Your task to perform on an android device: change text size in settings app Image 0: 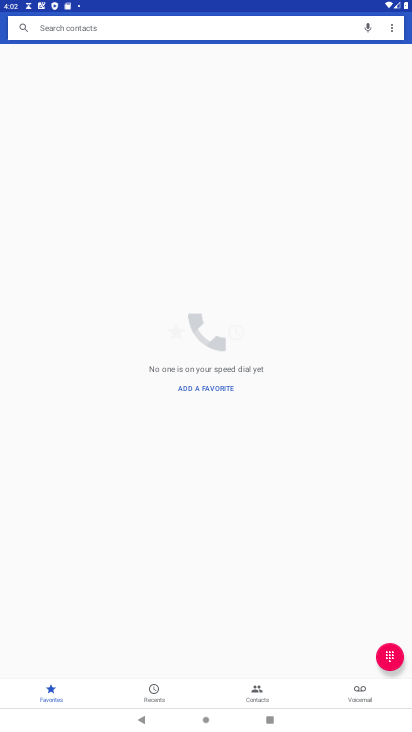
Step 0: press home button
Your task to perform on an android device: change text size in settings app Image 1: 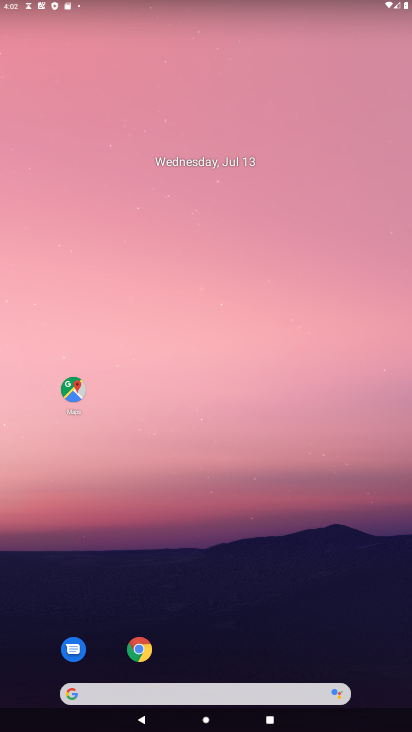
Step 1: drag from (231, 709) to (226, 42)
Your task to perform on an android device: change text size in settings app Image 2: 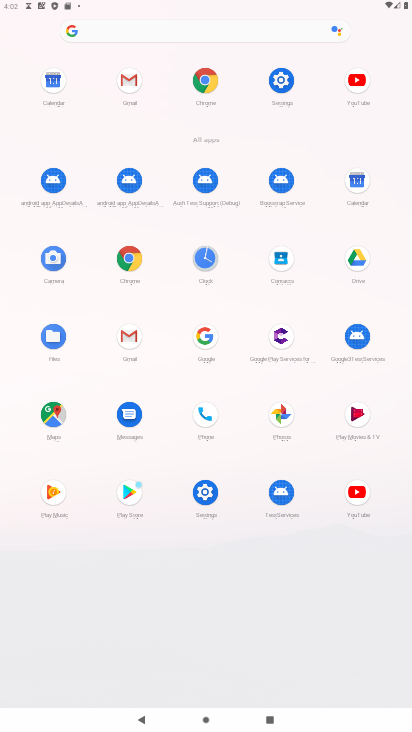
Step 2: click (280, 78)
Your task to perform on an android device: change text size in settings app Image 3: 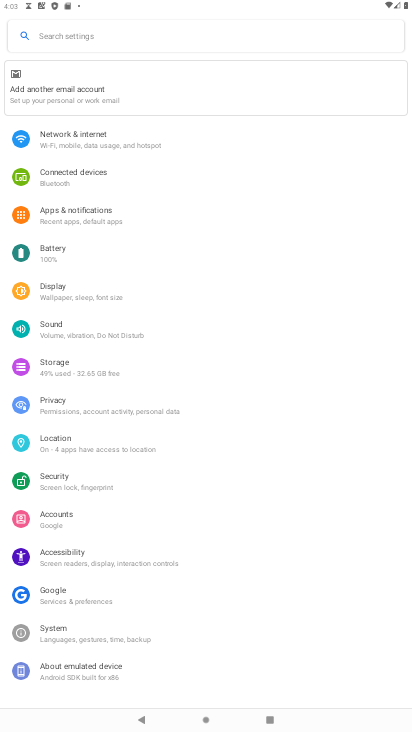
Step 3: click (93, 299)
Your task to perform on an android device: change text size in settings app Image 4: 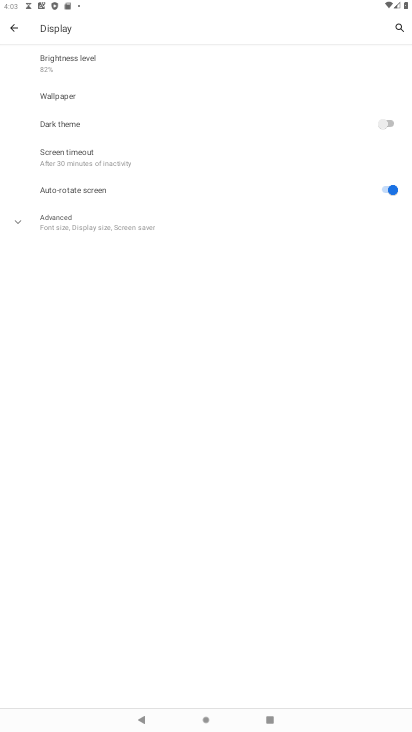
Step 4: click (91, 224)
Your task to perform on an android device: change text size in settings app Image 5: 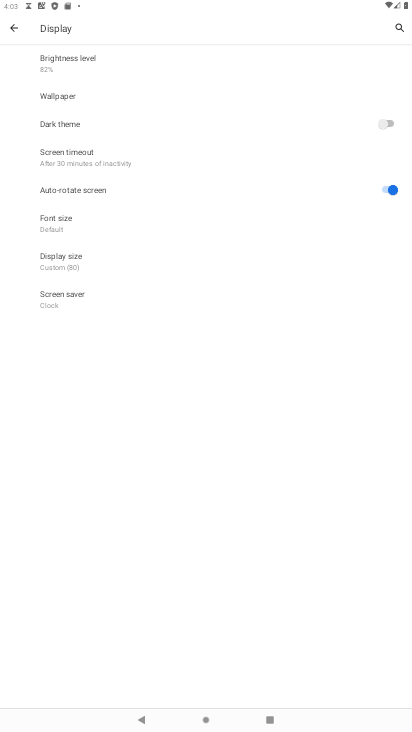
Step 5: click (50, 224)
Your task to perform on an android device: change text size in settings app Image 6: 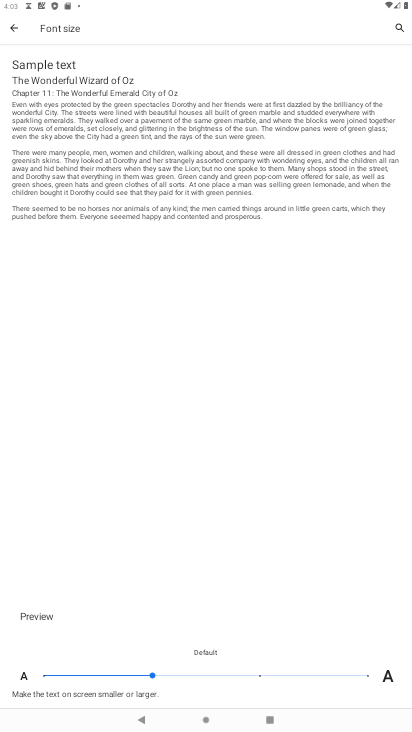
Step 6: click (365, 674)
Your task to perform on an android device: change text size in settings app Image 7: 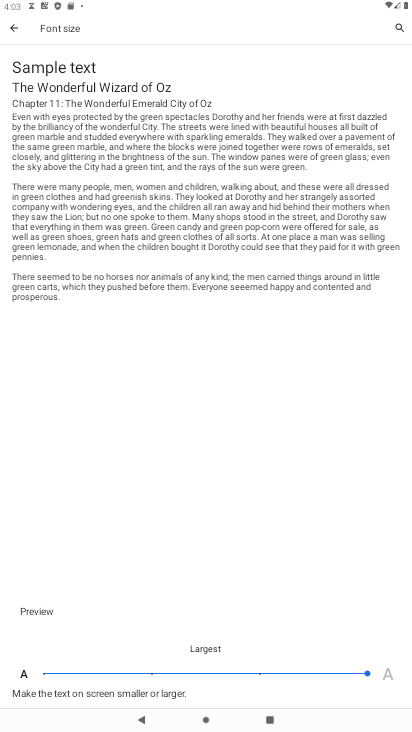
Step 7: task complete